Your task to perform on an android device: change the clock style Image 0: 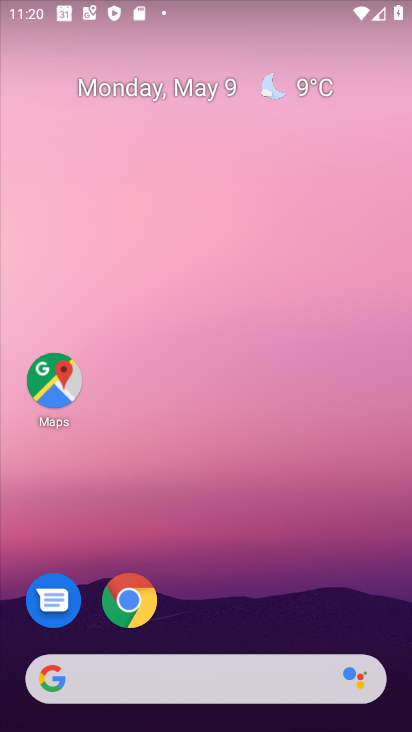
Step 0: drag from (296, 632) to (291, 215)
Your task to perform on an android device: change the clock style Image 1: 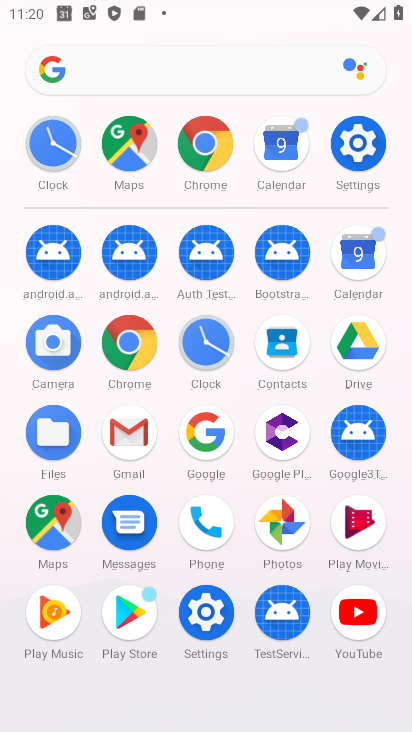
Step 1: click (201, 353)
Your task to perform on an android device: change the clock style Image 2: 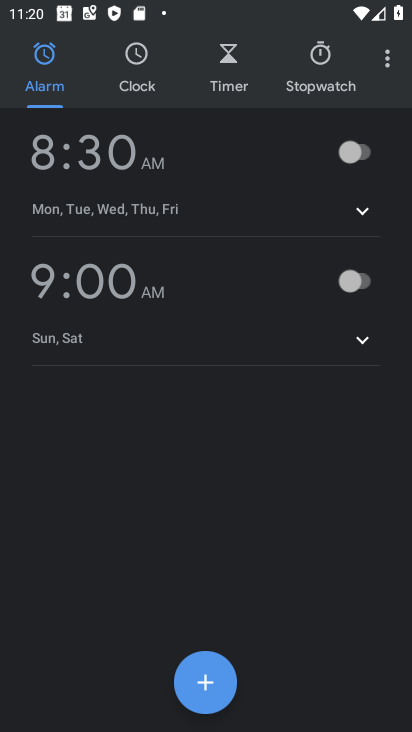
Step 2: click (401, 72)
Your task to perform on an android device: change the clock style Image 3: 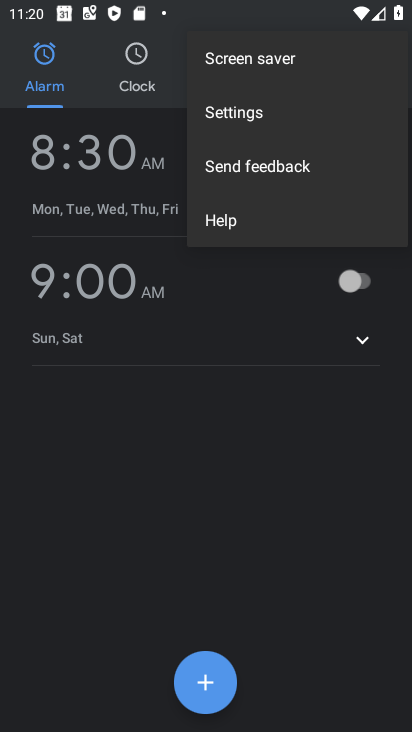
Step 3: click (205, 134)
Your task to perform on an android device: change the clock style Image 4: 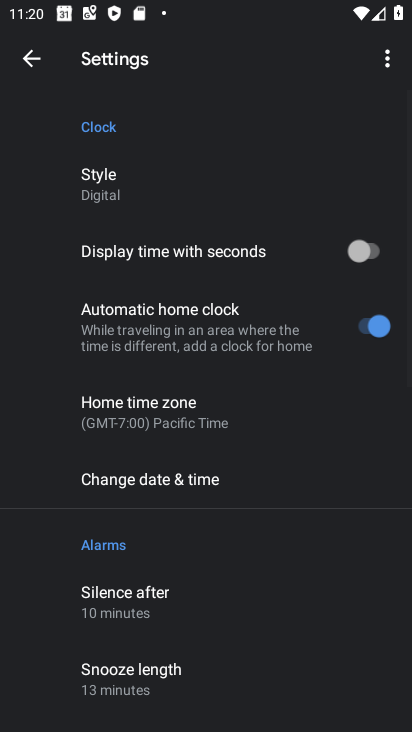
Step 4: click (86, 197)
Your task to perform on an android device: change the clock style Image 5: 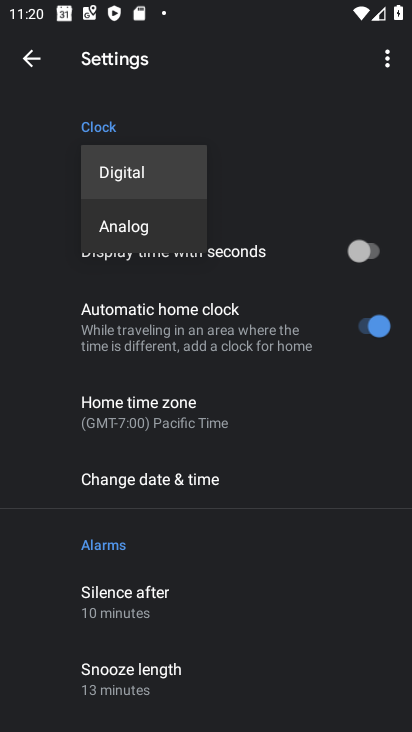
Step 5: click (136, 237)
Your task to perform on an android device: change the clock style Image 6: 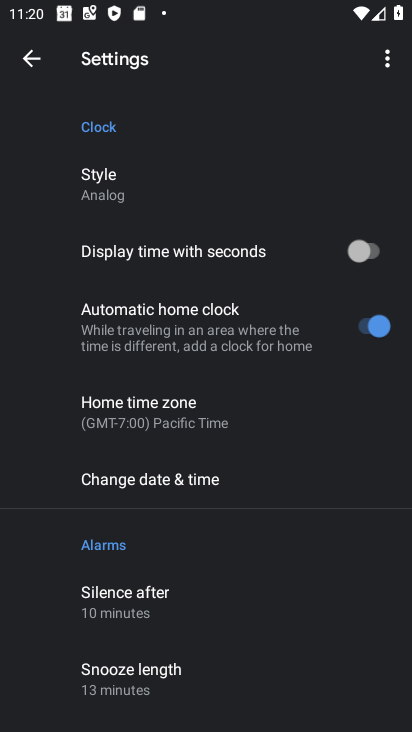
Step 6: task complete